Your task to perform on an android device: Is it going to rain tomorrow? Image 0: 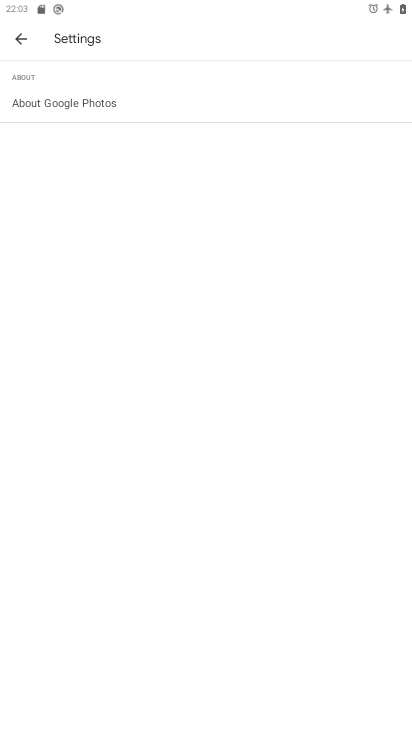
Step 0: click (19, 25)
Your task to perform on an android device: Is it going to rain tomorrow? Image 1: 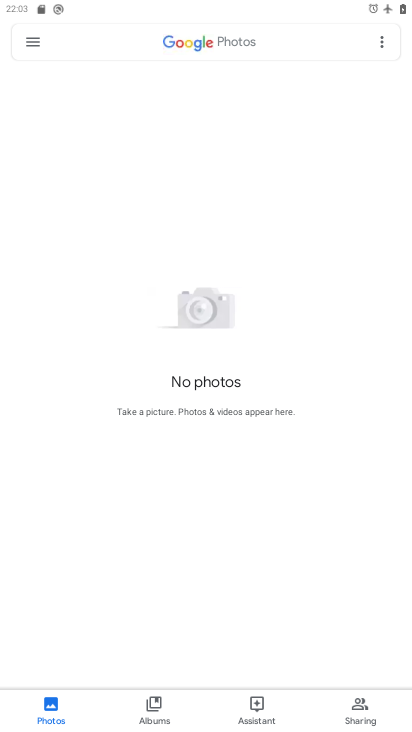
Step 1: press home button
Your task to perform on an android device: Is it going to rain tomorrow? Image 2: 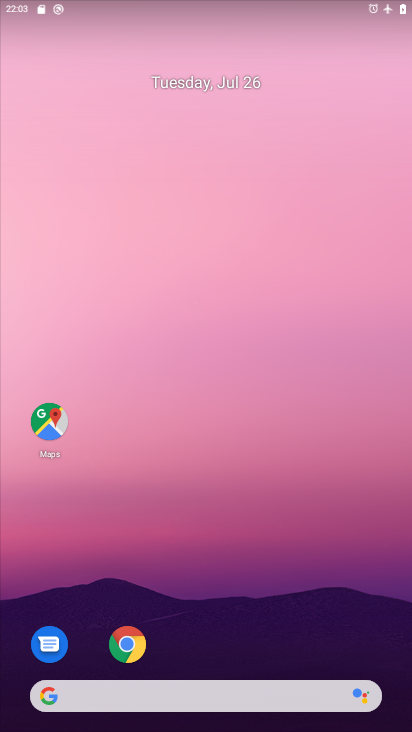
Step 2: click (135, 648)
Your task to perform on an android device: Is it going to rain tomorrow? Image 3: 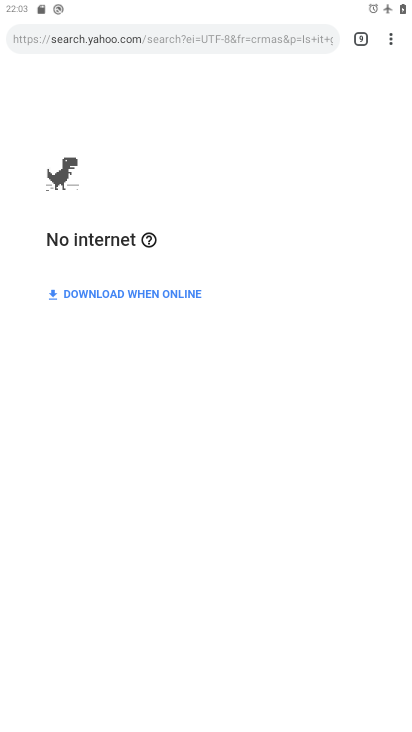
Step 3: click (396, 39)
Your task to perform on an android device: Is it going to rain tomorrow? Image 4: 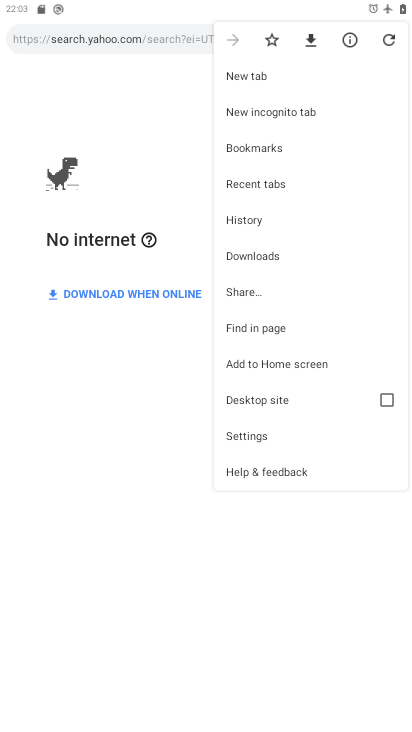
Step 4: click (254, 71)
Your task to perform on an android device: Is it going to rain tomorrow? Image 5: 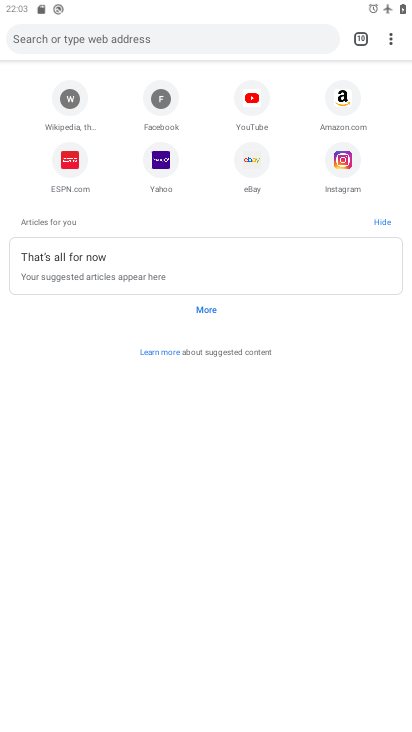
Step 5: click (222, 38)
Your task to perform on an android device: Is it going to rain tomorrow? Image 6: 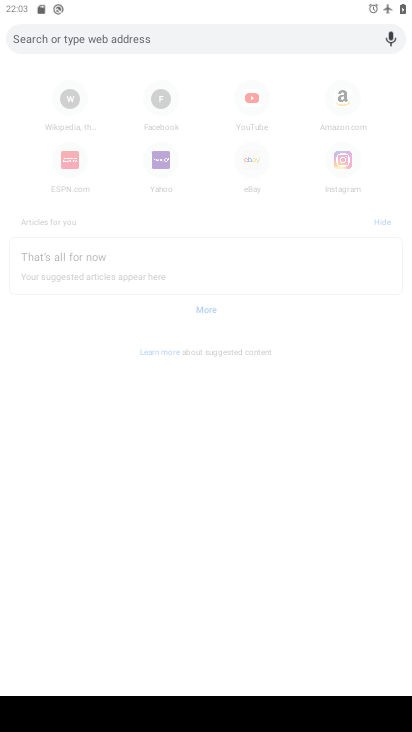
Step 6: type "Is it going to rain tomorrow "
Your task to perform on an android device: Is it going to rain tomorrow? Image 7: 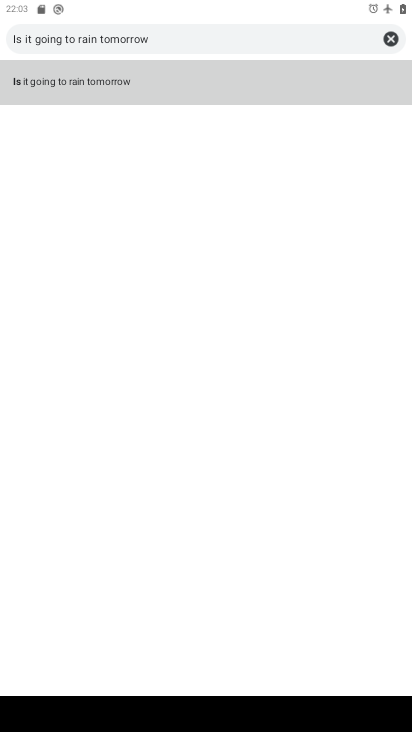
Step 7: click (119, 70)
Your task to perform on an android device: Is it going to rain tomorrow? Image 8: 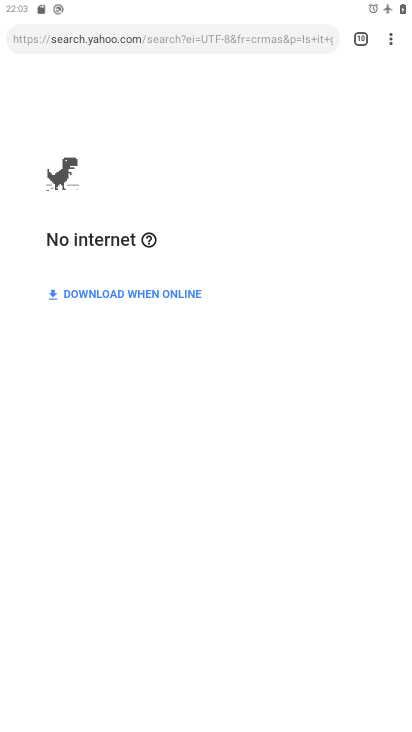
Step 8: task complete